Your task to perform on an android device: change the clock display to analog Image 0: 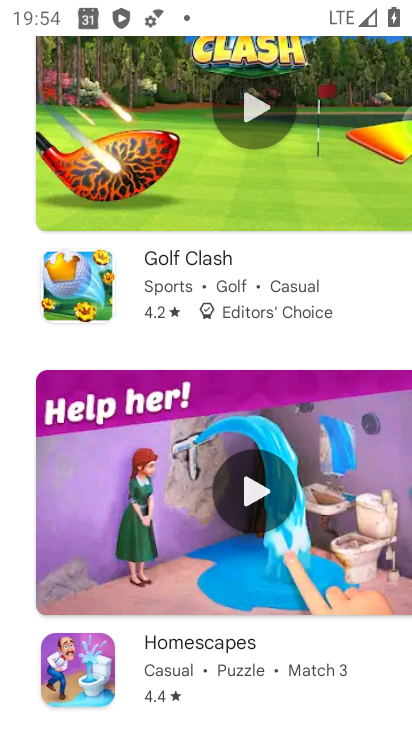
Step 0: drag from (224, 631) to (360, 292)
Your task to perform on an android device: change the clock display to analog Image 1: 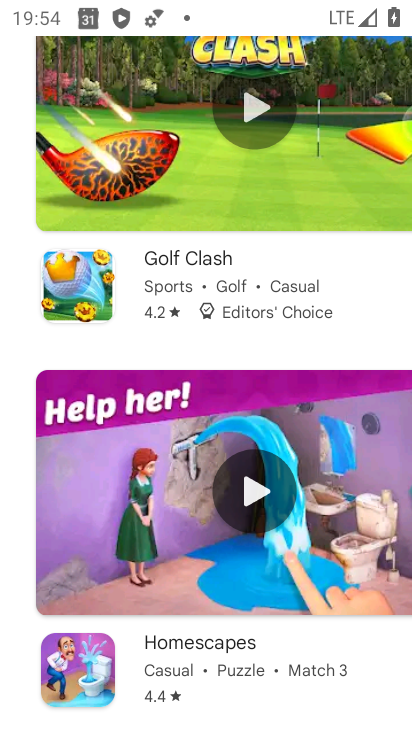
Step 1: press home button
Your task to perform on an android device: change the clock display to analog Image 2: 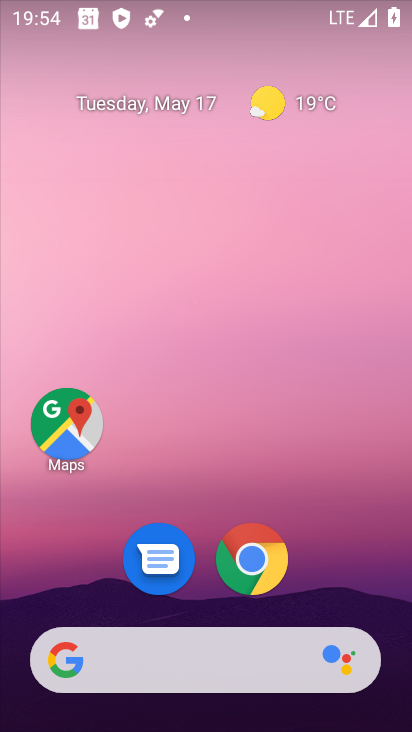
Step 2: drag from (205, 582) to (314, 149)
Your task to perform on an android device: change the clock display to analog Image 3: 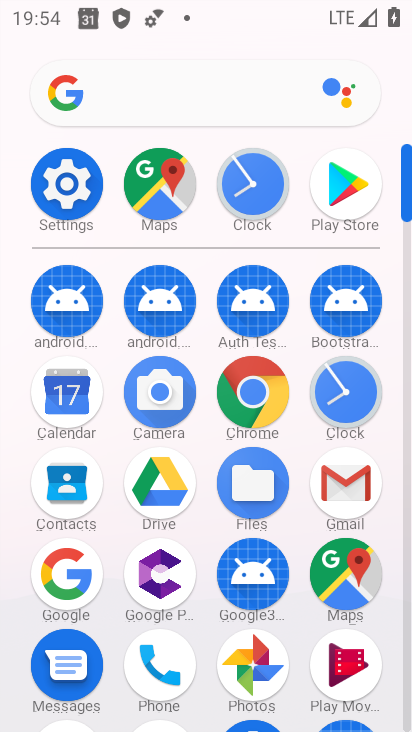
Step 3: click (355, 396)
Your task to perform on an android device: change the clock display to analog Image 4: 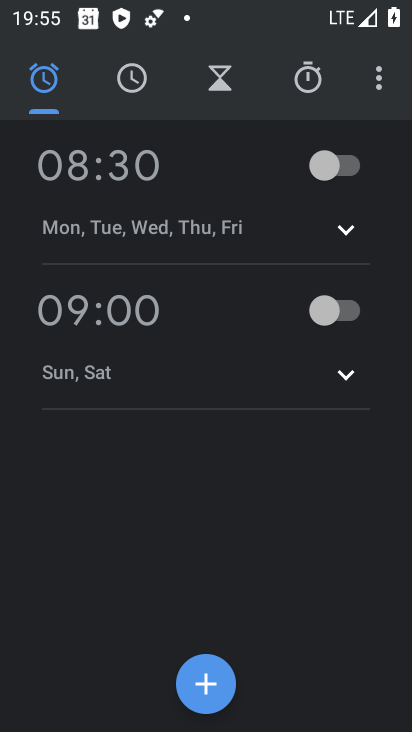
Step 4: click (359, 95)
Your task to perform on an android device: change the clock display to analog Image 5: 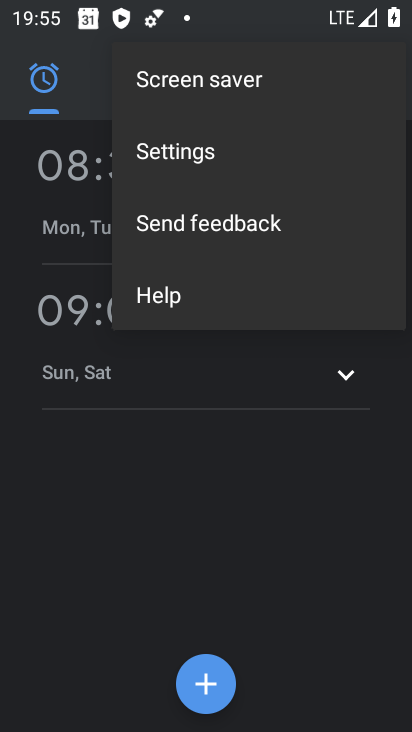
Step 5: click (195, 149)
Your task to perform on an android device: change the clock display to analog Image 6: 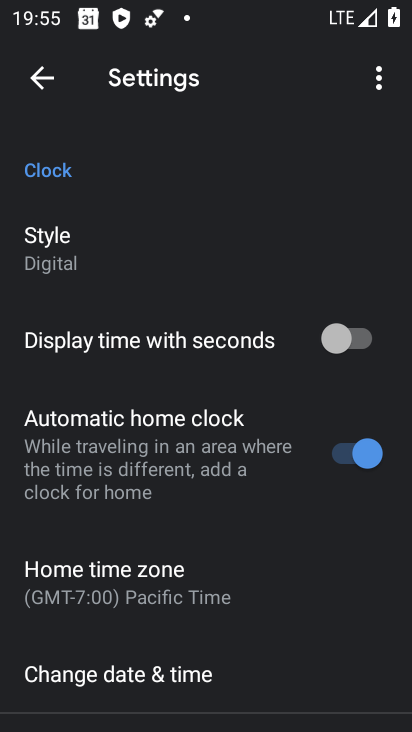
Step 6: click (67, 264)
Your task to perform on an android device: change the clock display to analog Image 7: 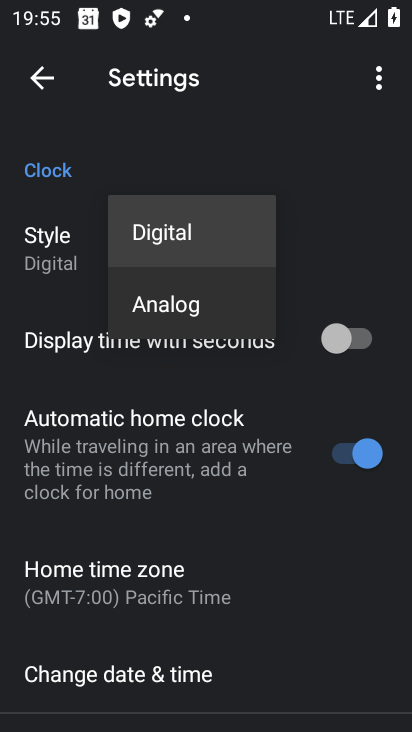
Step 7: click (181, 294)
Your task to perform on an android device: change the clock display to analog Image 8: 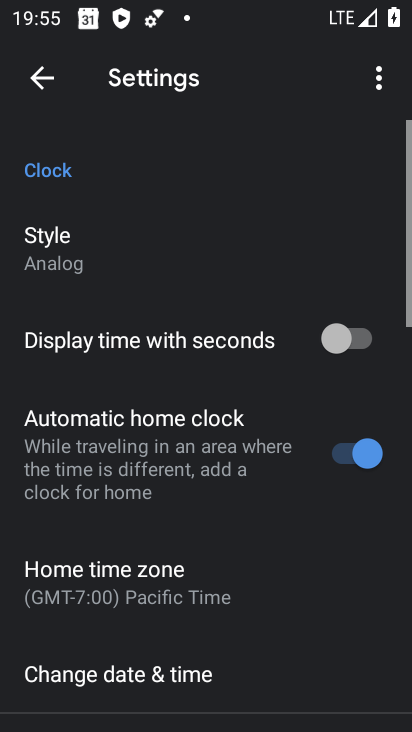
Step 8: task complete